Your task to perform on an android device: empty trash in google photos Image 0: 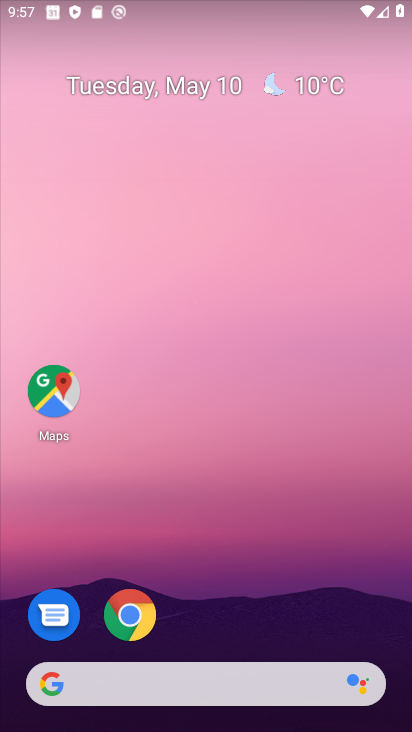
Step 0: drag from (397, 639) to (341, 36)
Your task to perform on an android device: empty trash in google photos Image 1: 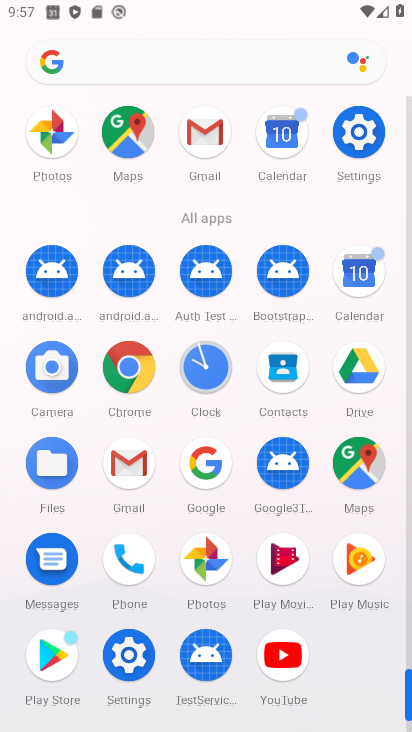
Step 1: click (207, 560)
Your task to perform on an android device: empty trash in google photos Image 2: 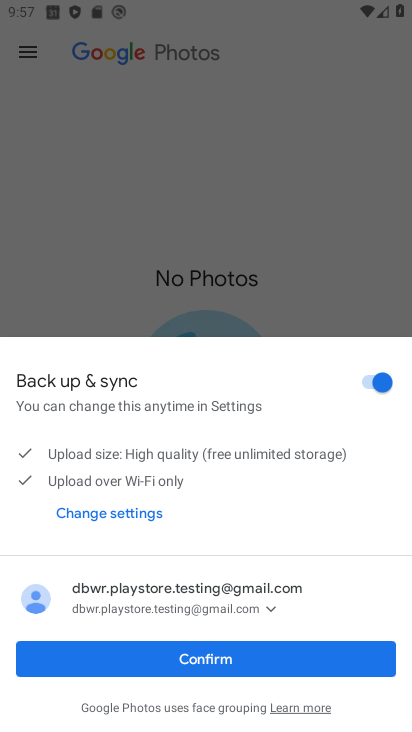
Step 2: click (198, 651)
Your task to perform on an android device: empty trash in google photos Image 3: 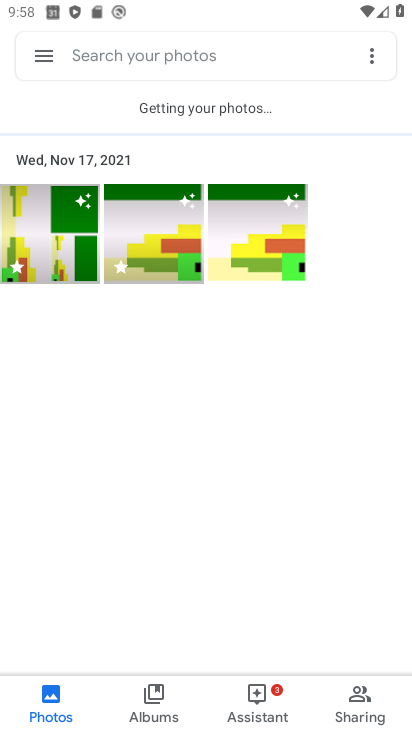
Step 3: click (41, 59)
Your task to perform on an android device: empty trash in google photos Image 4: 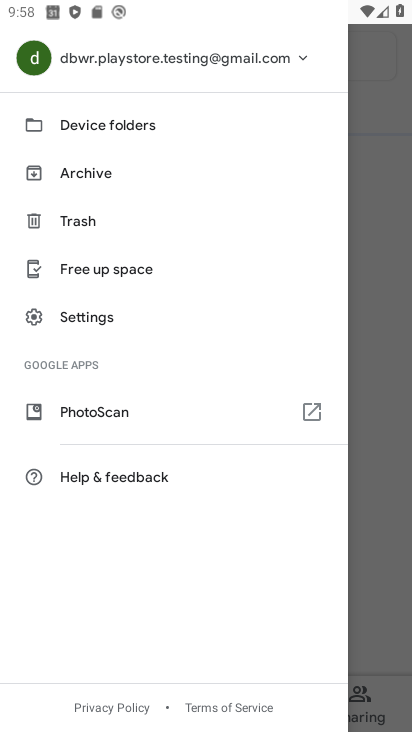
Step 4: click (70, 214)
Your task to perform on an android device: empty trash in google photos Image 5: 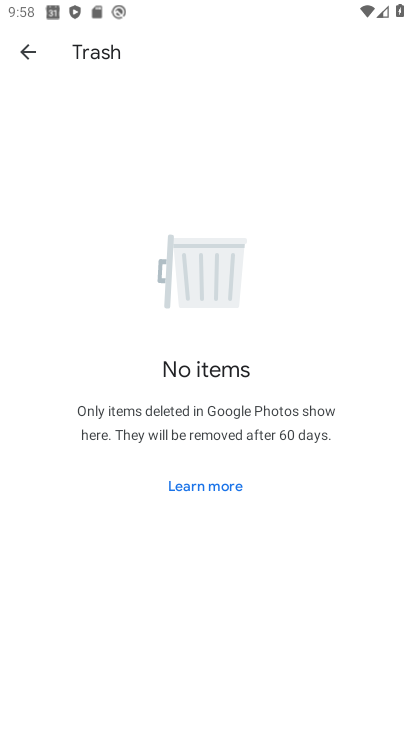
Step 5: task complete